Your task to perform on an android device: What's on my calendar today? Image 0: 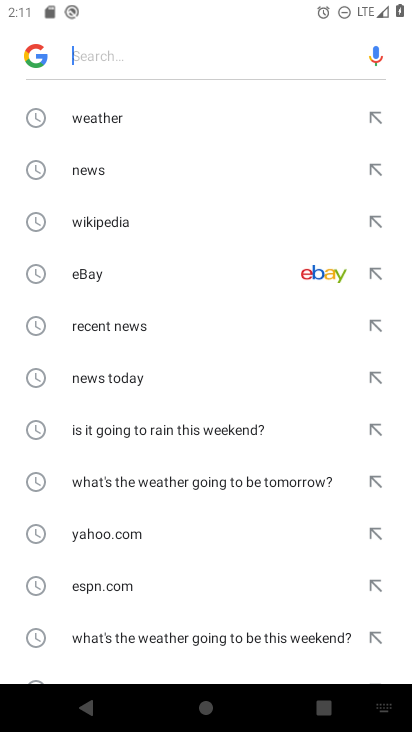
Step 0: press back button
Your task to perform on an android device: What's on my calendar today? Image 1: 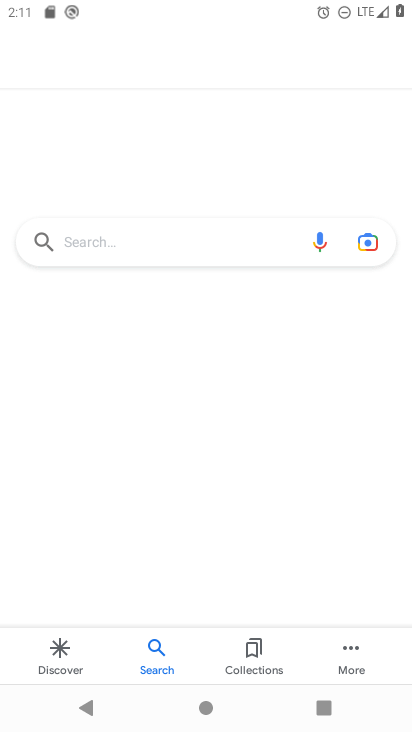
Step 1: click (350, 495)
Your task to perform on an android device: What's on my calendar today? Image 2: 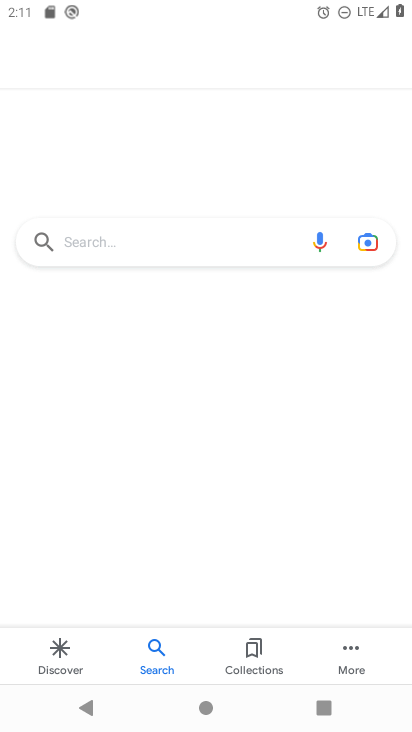
Step 2: press back button
Your task to perform on an android device: What's on my calendar today? Image 3: 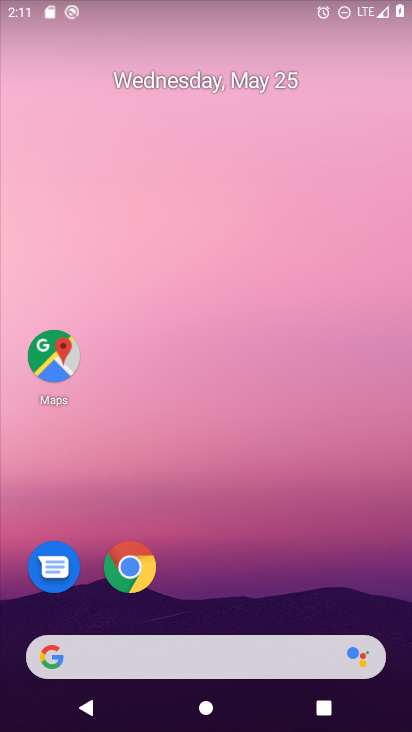
Step 3: drag from (411, 664) to (411, 204)
Your task to perform on an android device: What's on my calendar today? Image 4: 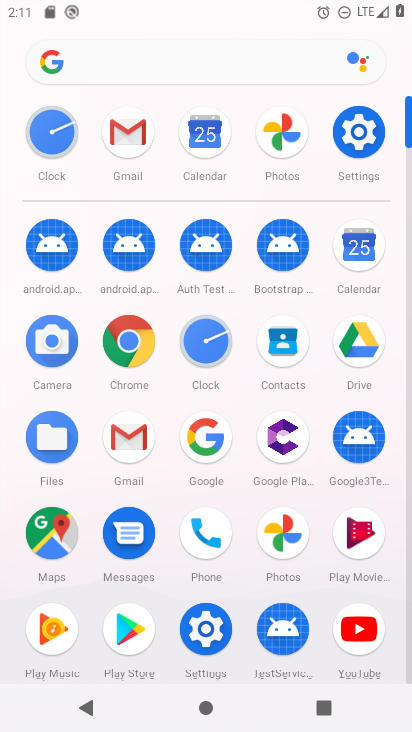
Step 4: click (360, 265)
Your task to perform on an android device: What's on my calendar today? Image 5: 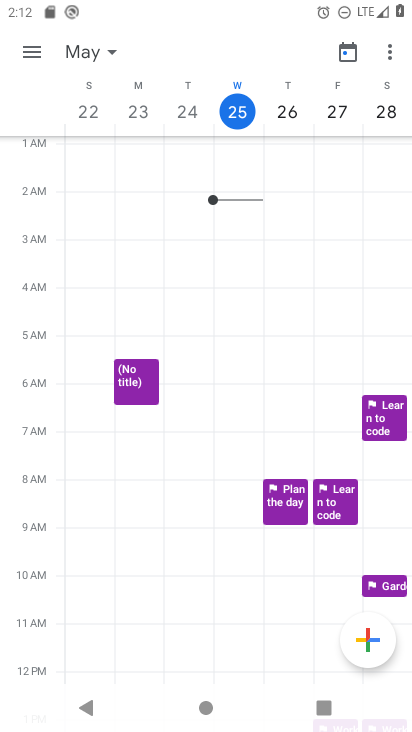
Step 5: click (38, 50)
Your task to perform on an android device: What's on my calendar today? Image 6: 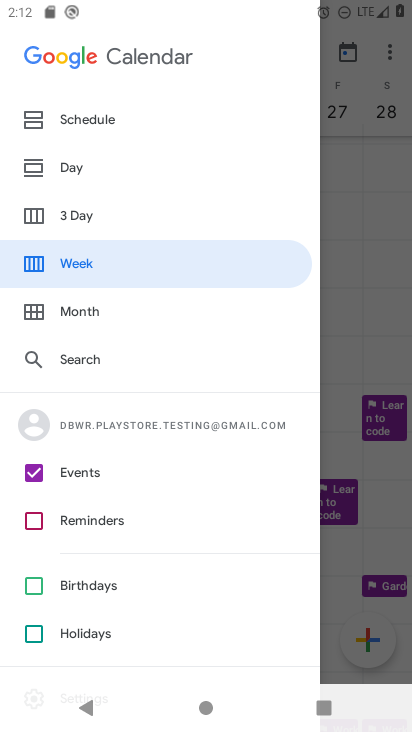
Step 6: click (69, 160)
Your task to perform on an android device: What's on my calendar today? Image 7: 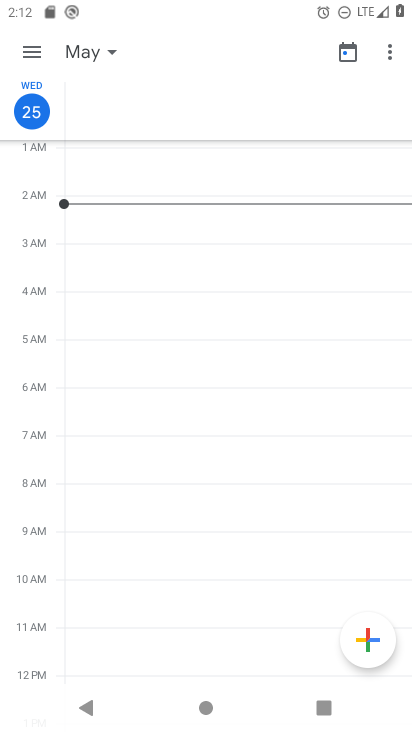
Step 7: task complete